Your task to perform on an android device: toggle data saver in the chrome app Image 0: 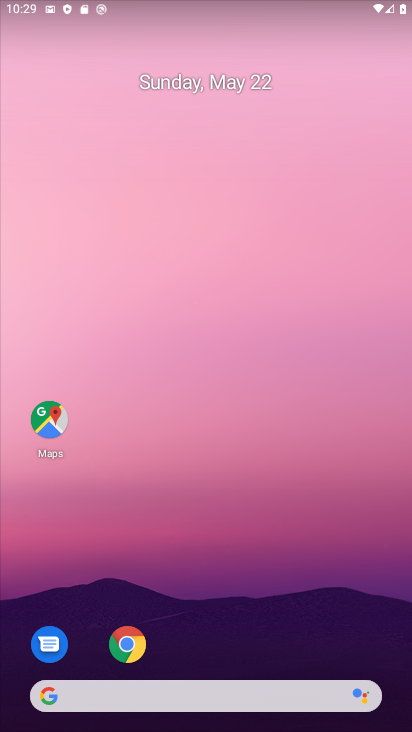
Step 0: press home button
Your task to perform on an android device: toggle data saver in the chrome app Image 1: 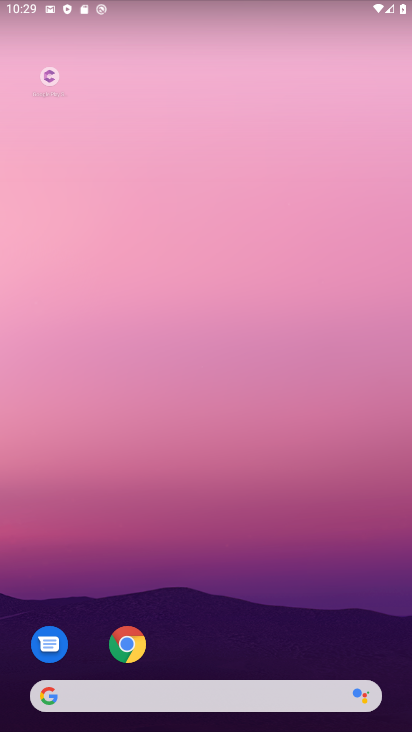
Step 1: click (133, 642)
Your task to perform on an android device: toggle data saver in the chrome app Image 2: 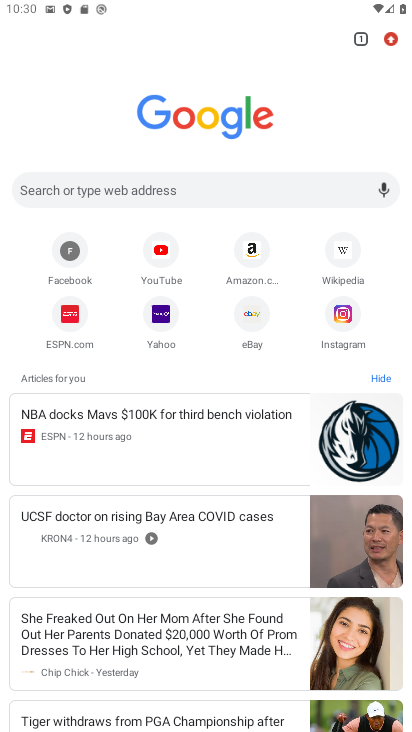
Step 2: click (392, 35)
Your task to perform on an android device: toggle data saver in the chrome app Image 3: 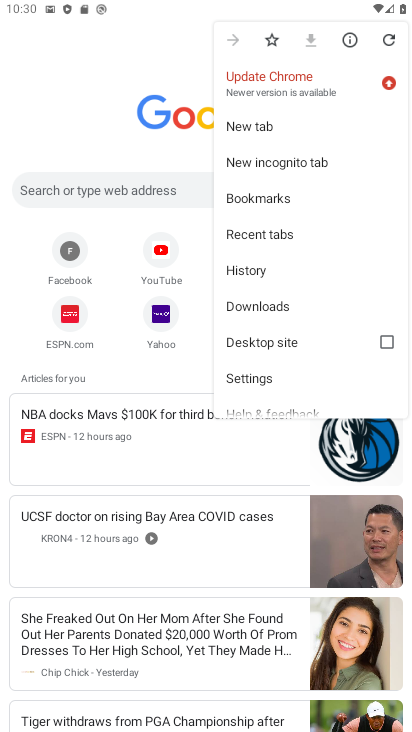
Step 3: click (280, 373)
Your task to perform on an android device: toggle data saver in the chrome app Image 4: 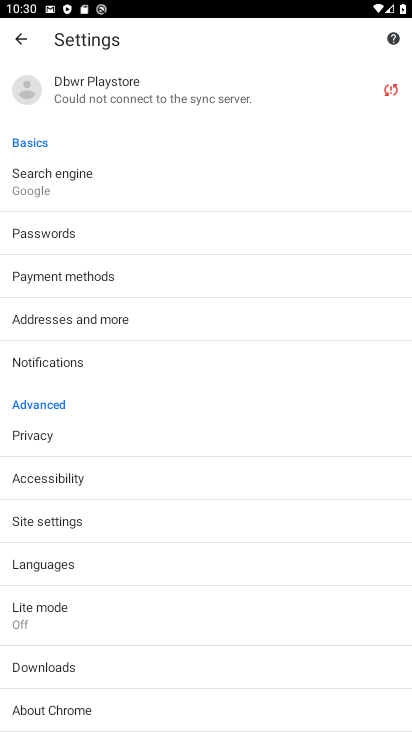
Step 4: click (97, 613)
Your task to perform on an android device: toggle data saver in the chrome app Image 5: 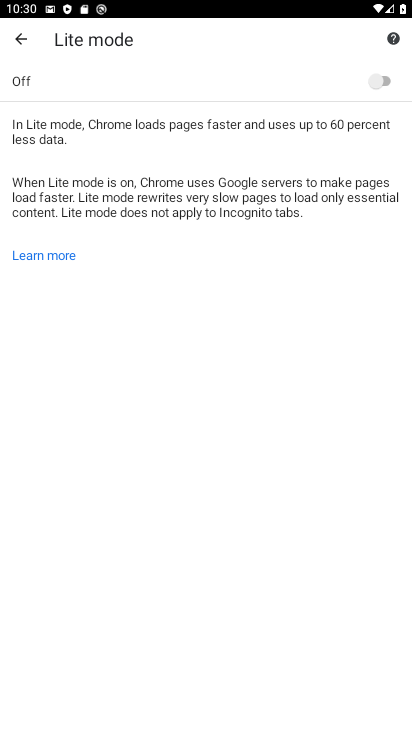
Step 5: click (385, 76)
Your task to perform on an android device: toggle data saver in the chrome app Image 6: 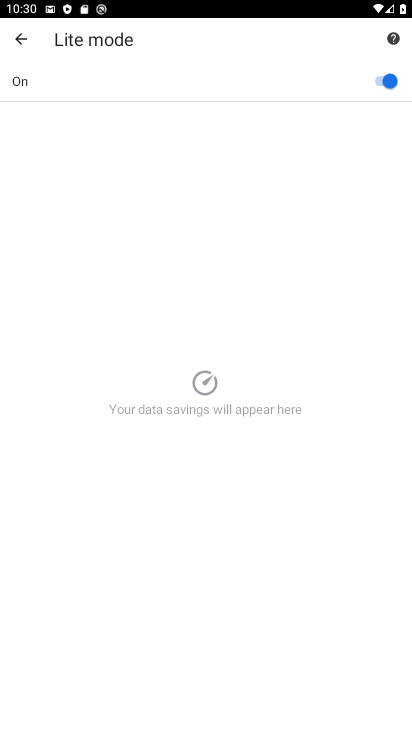
Step 6: task complete